Your task to perform on an android device: What's the news in Venezuela? Image 0: 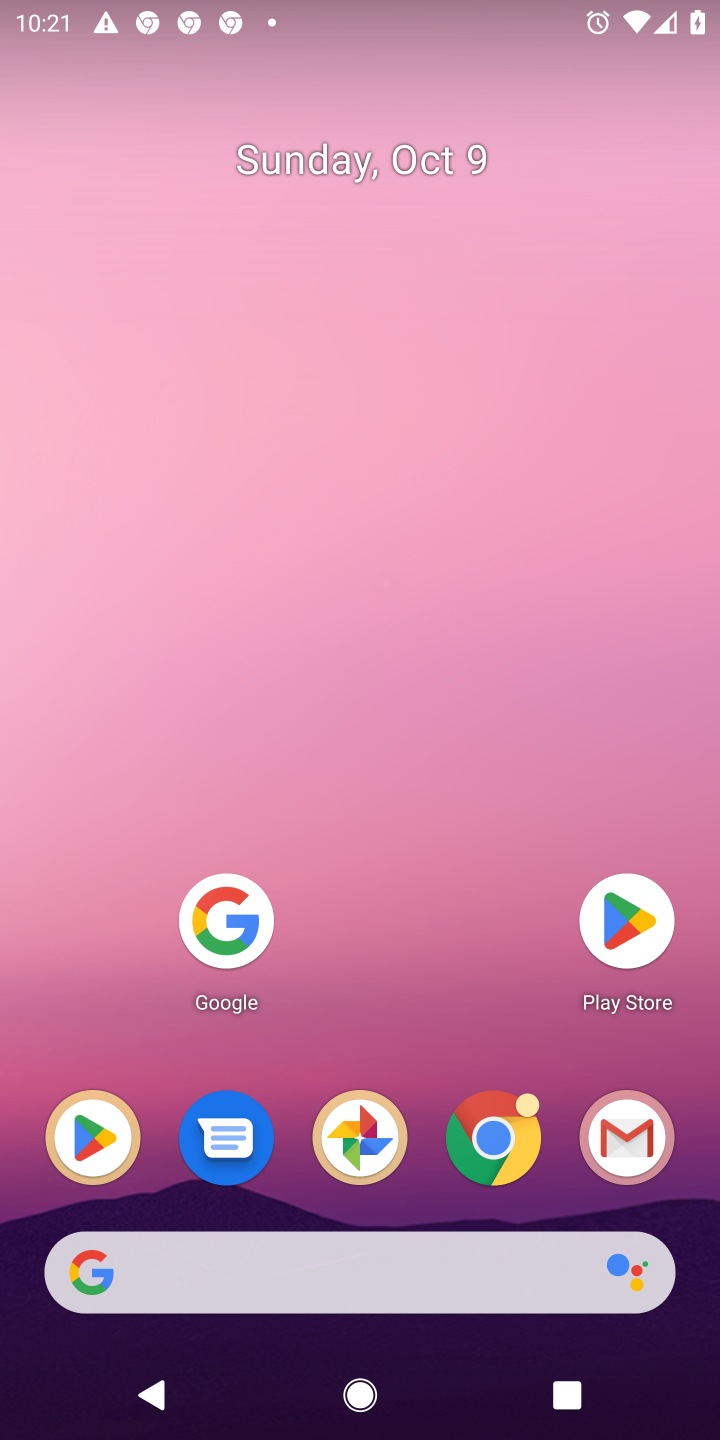
Step 0: click (224, 908)
Your task to perform on an android device: What's the news in Venezuela? Image 1: 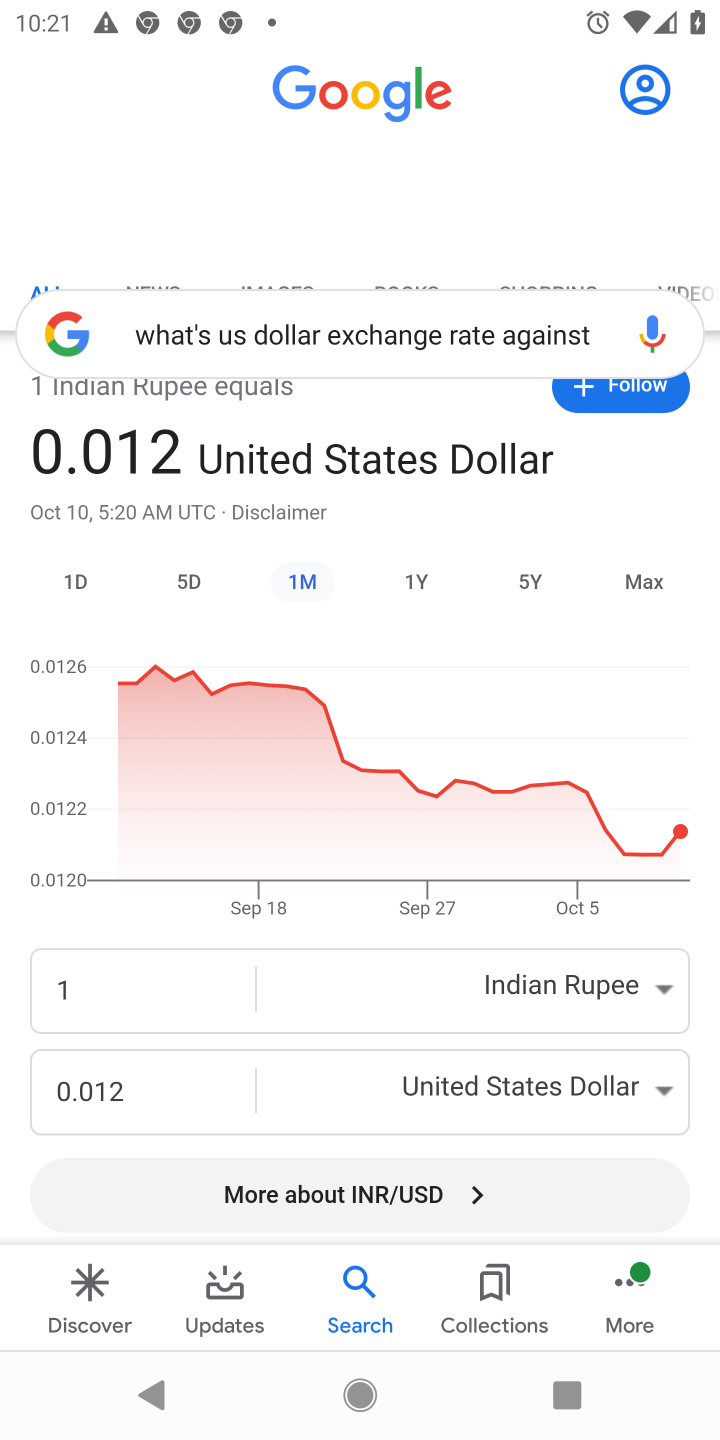
Step 1: click (587, 316)
Your task to perform on an android device: What's the news in Venezuela? Image 2: 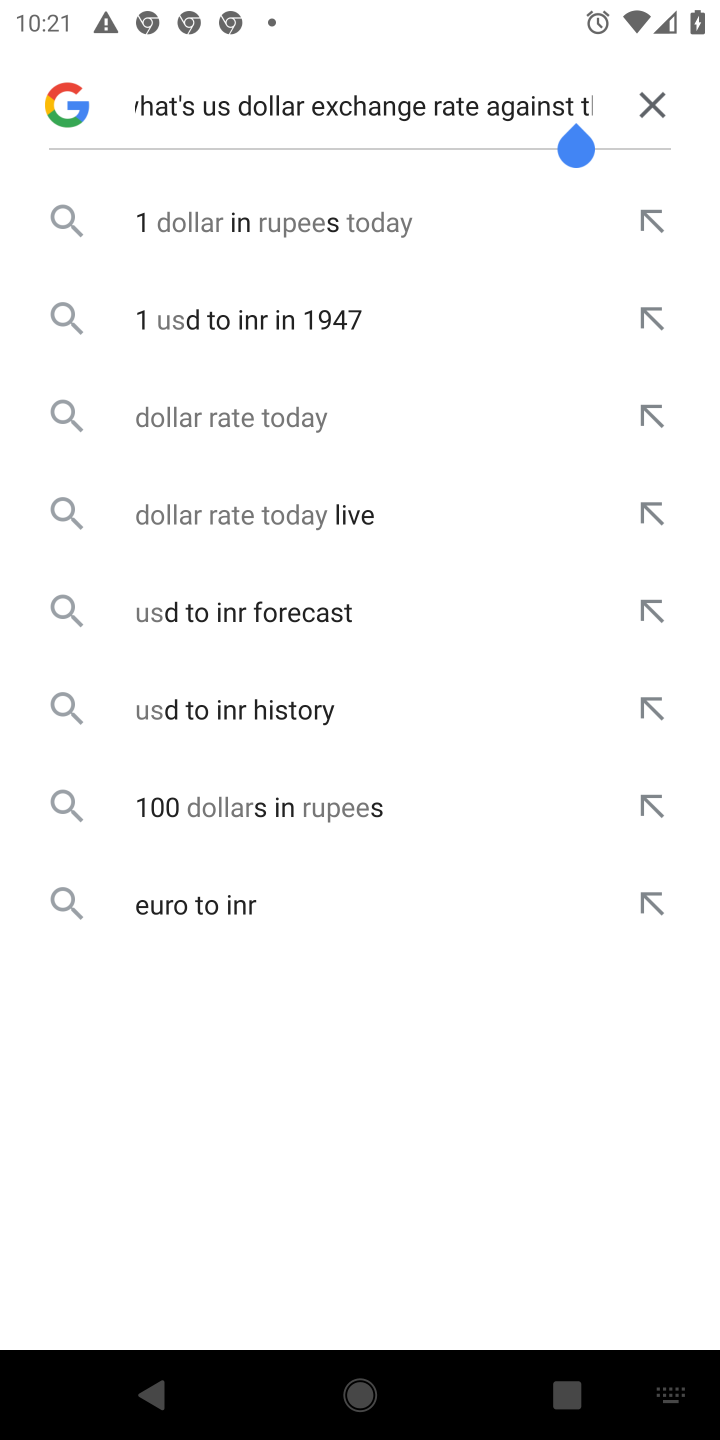
Step 2: click (650, 99)
Your task to perform on an android device: What's the news in Venezuela? Image 3: 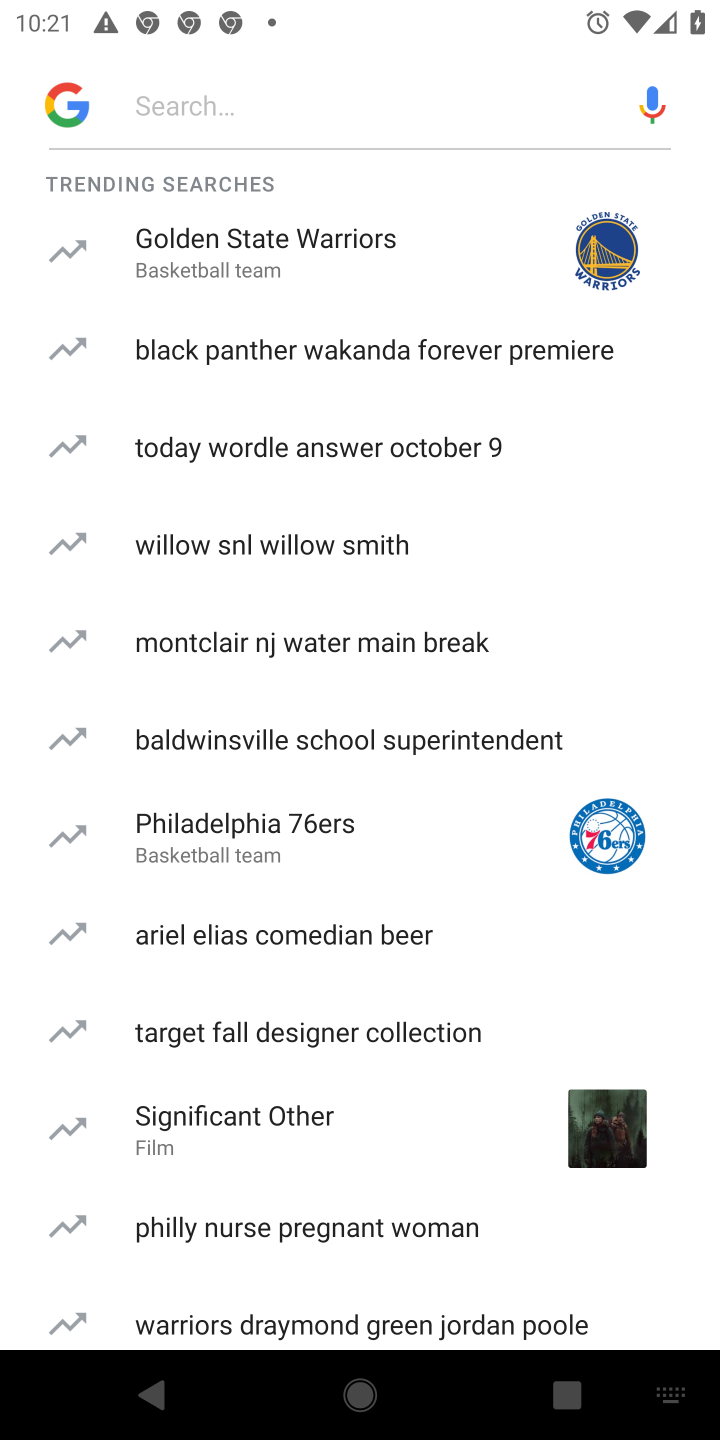
Step 3: click (381, 101)
Your task to perform on an android device: What's the news in Venezuela? Image 4: 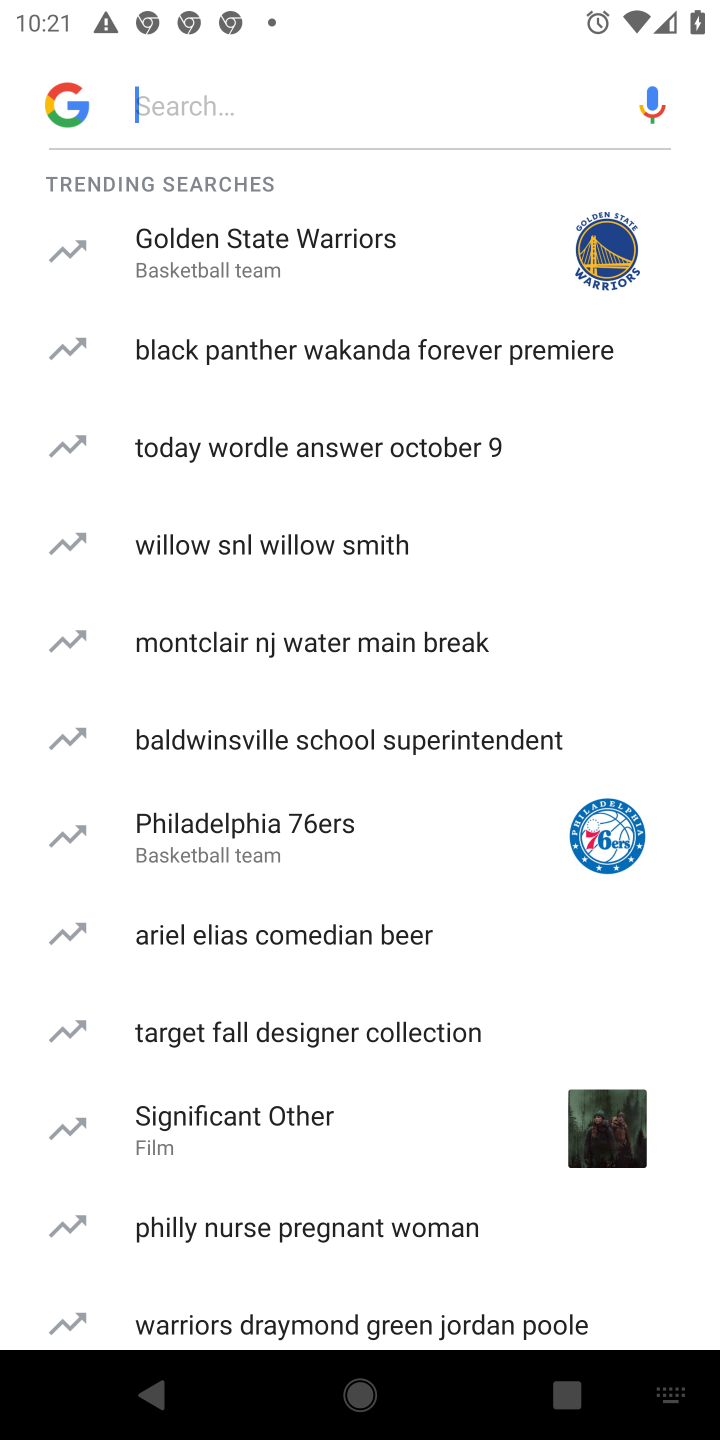
Step 4: type "What's the news in Venezuela? "
Your task to perform on an android device: What's the news in Venezuela? Image 5: 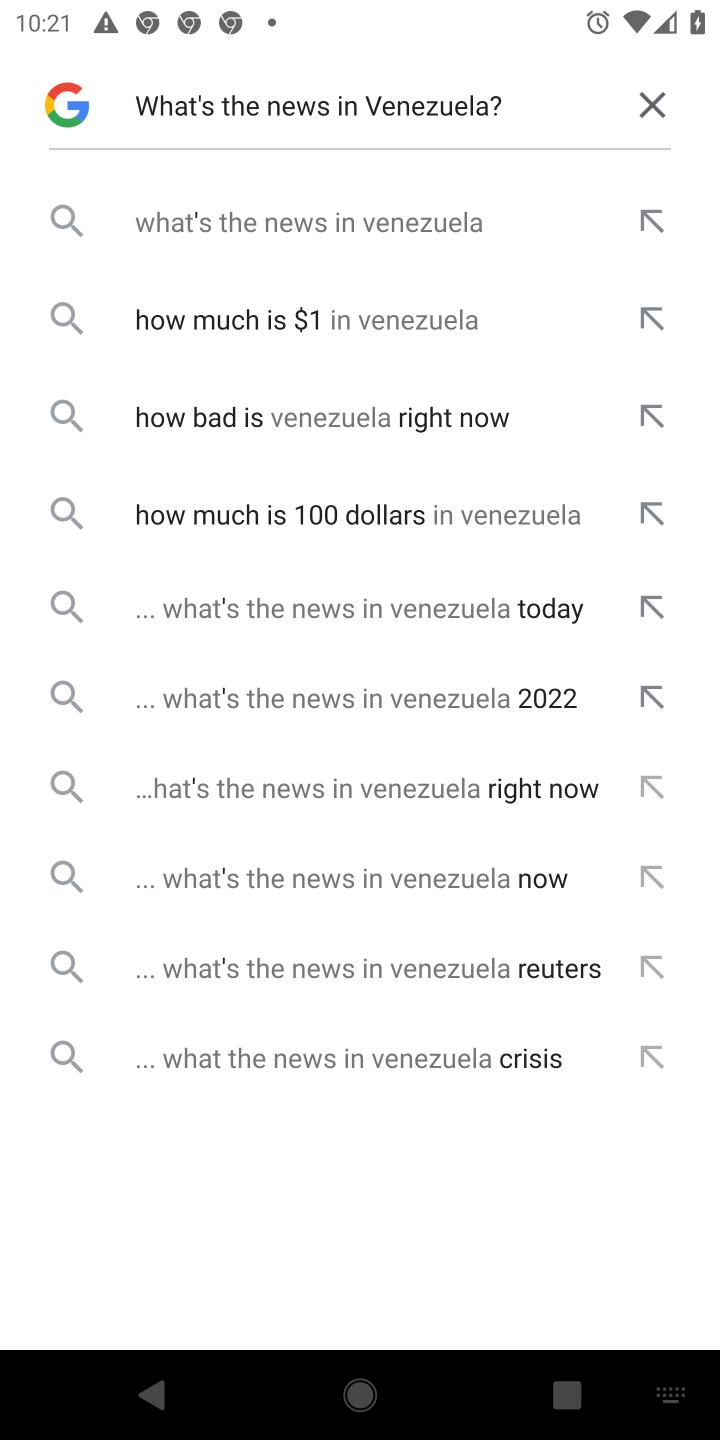
Step 5: click (340, 210)
Your task to perform on an android device: What's the news in Venezuela? Image 6: 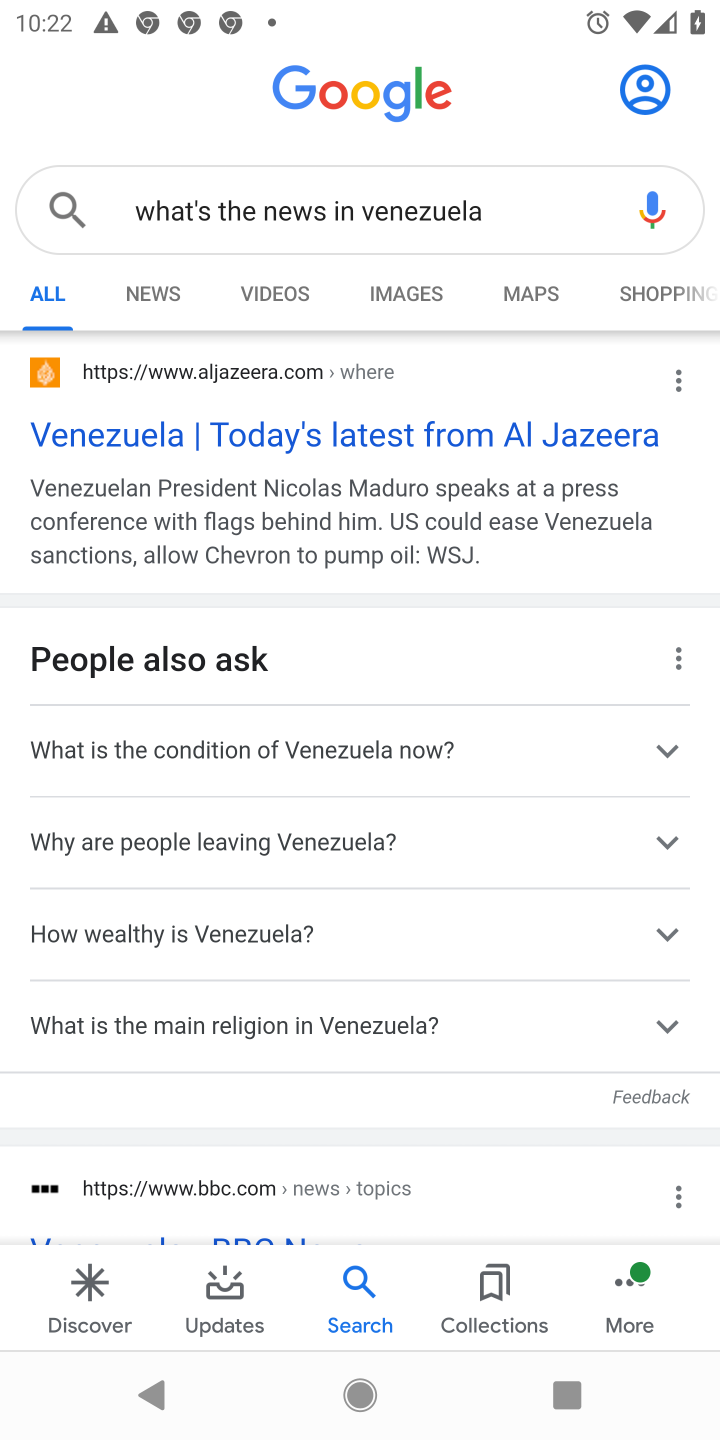
Step 6: click (395, 433)
Your task to perform on an android device: What's the news in Venezuela? Image 7: 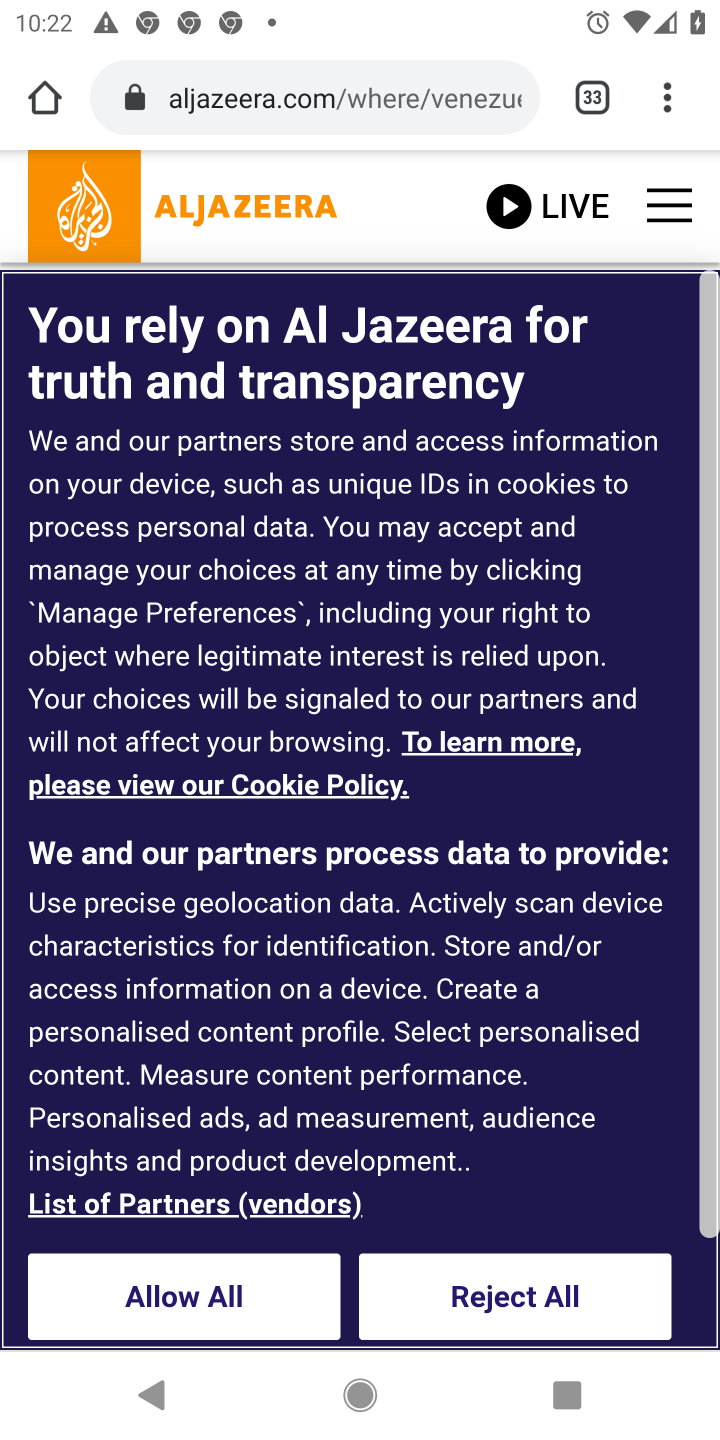
Step 7: drag from (441, 1135) to (409, 445)
Your task to perform on an android device: What's the news in Venezuela? Image 8: 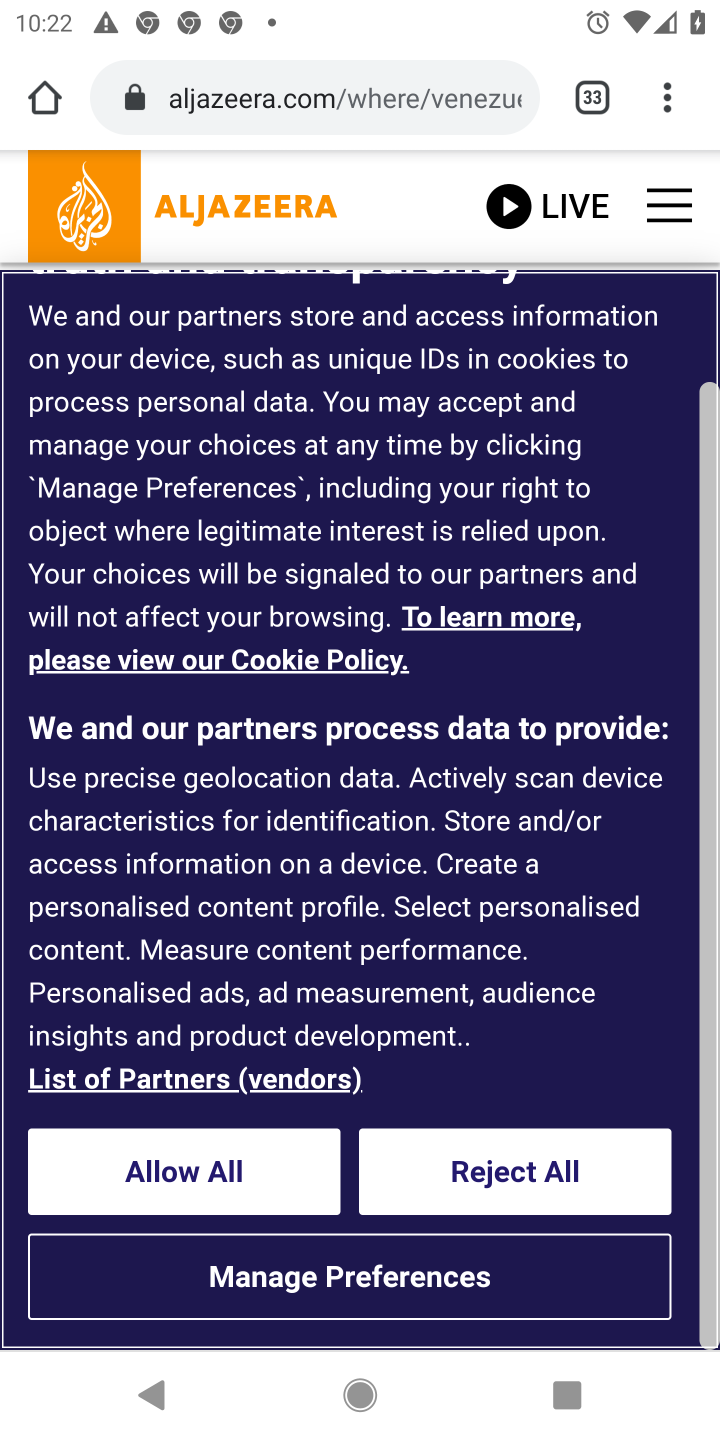
Step 8: click (123, 1158)
Your task to perform on an android device: What's the news in Venezuela? Image 9: 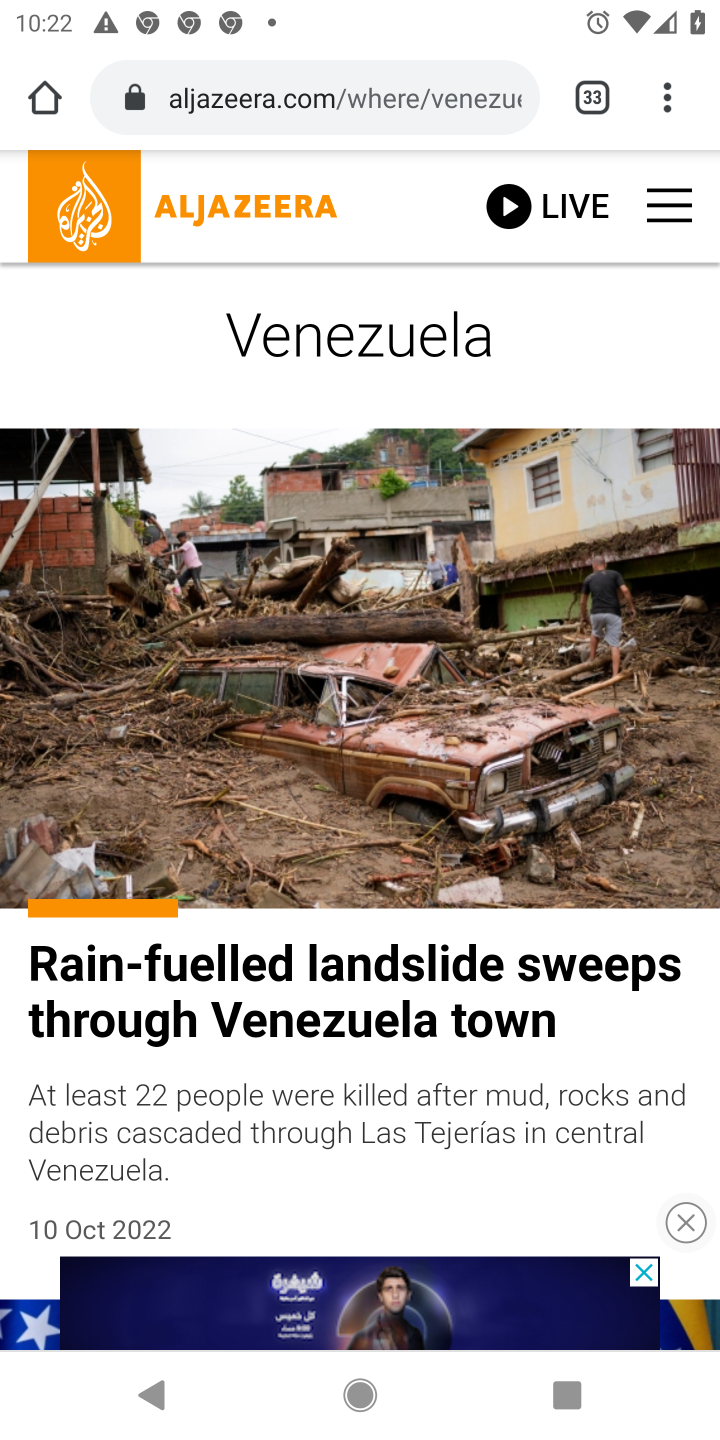
Step 9: task complete